Your task to perform on an android device: Empty the shopping cart on bestbuy. Image 0: 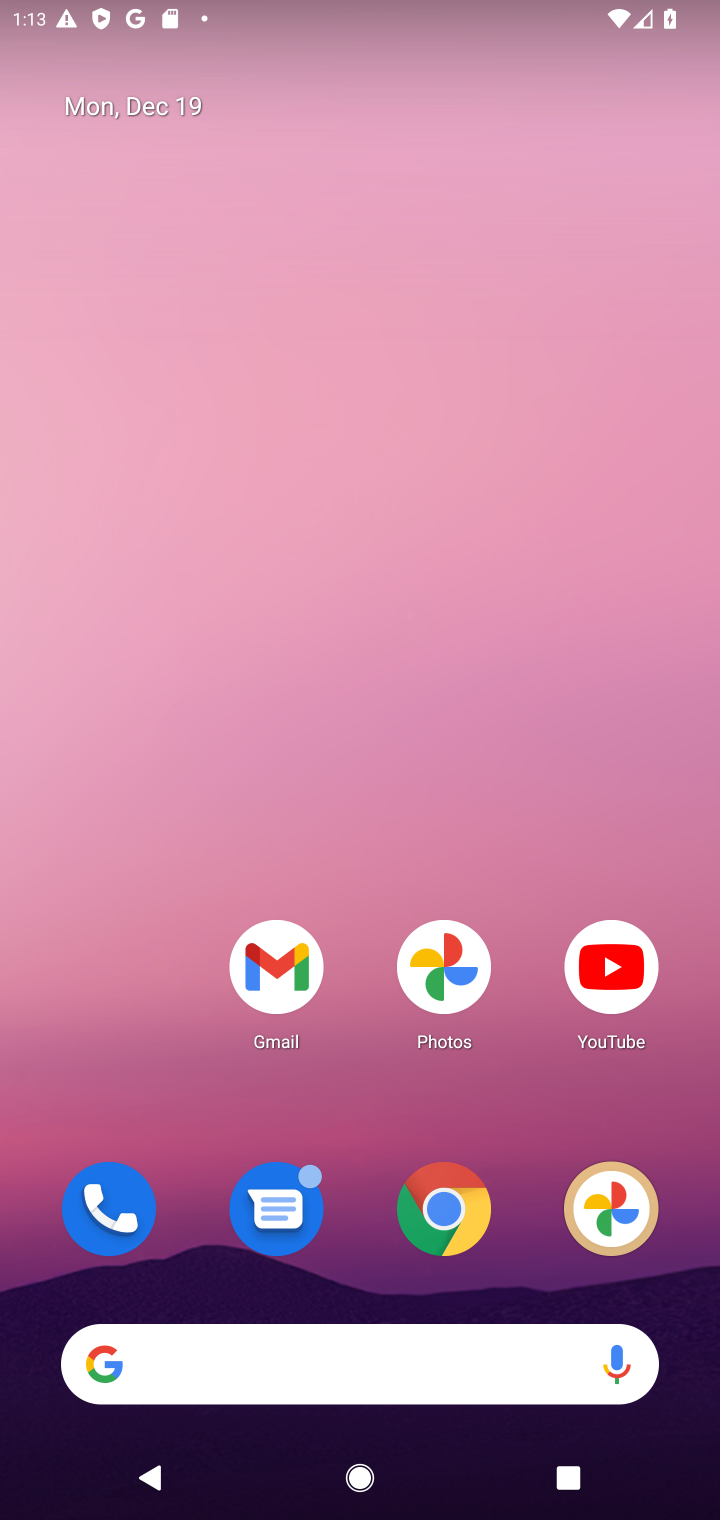
Step 0: click (439, 1205)
Your task to perform on an android device: Empty the shopping cart on bestbuy. Image 1: 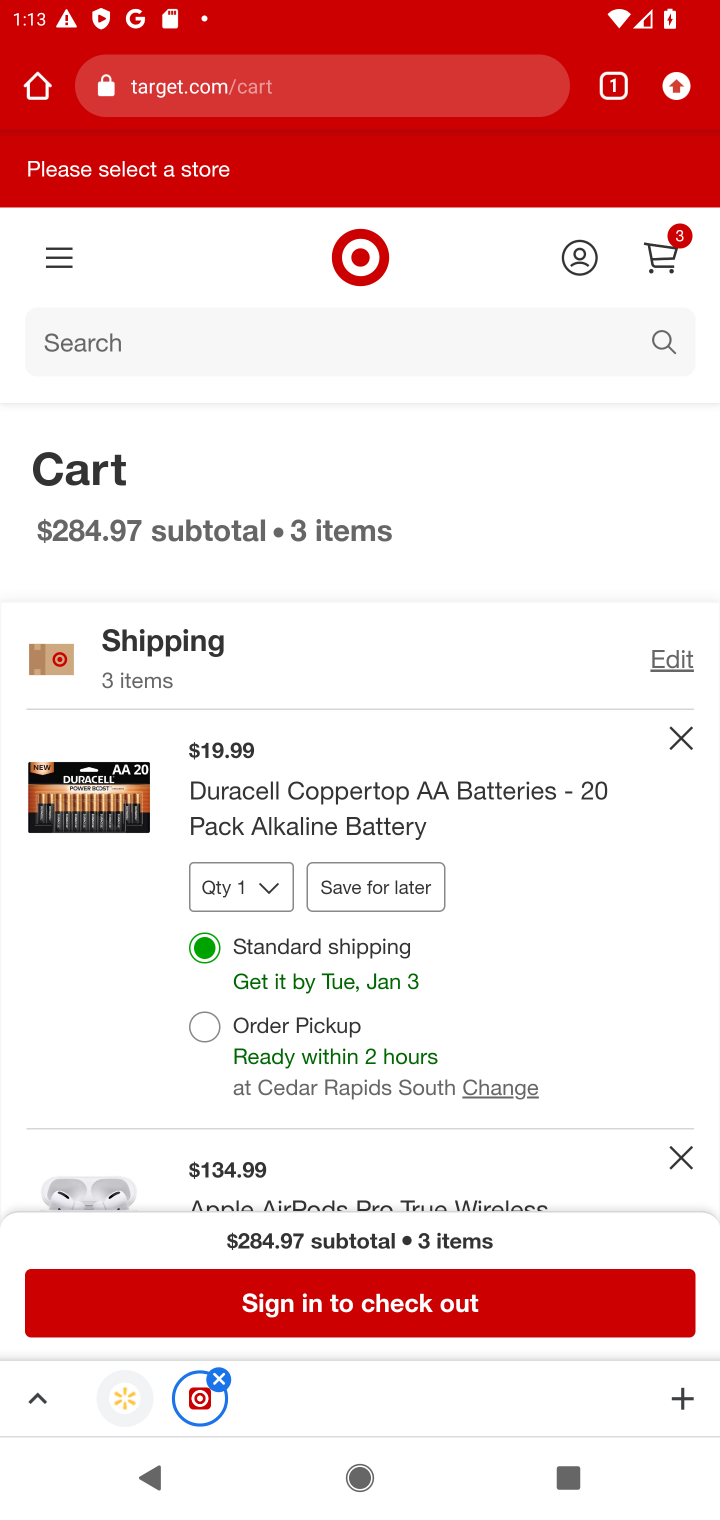
Step 1: click (355, 84)
Your task to perform on an android device: Empty the shopping cart on bestbuy. Image 2: 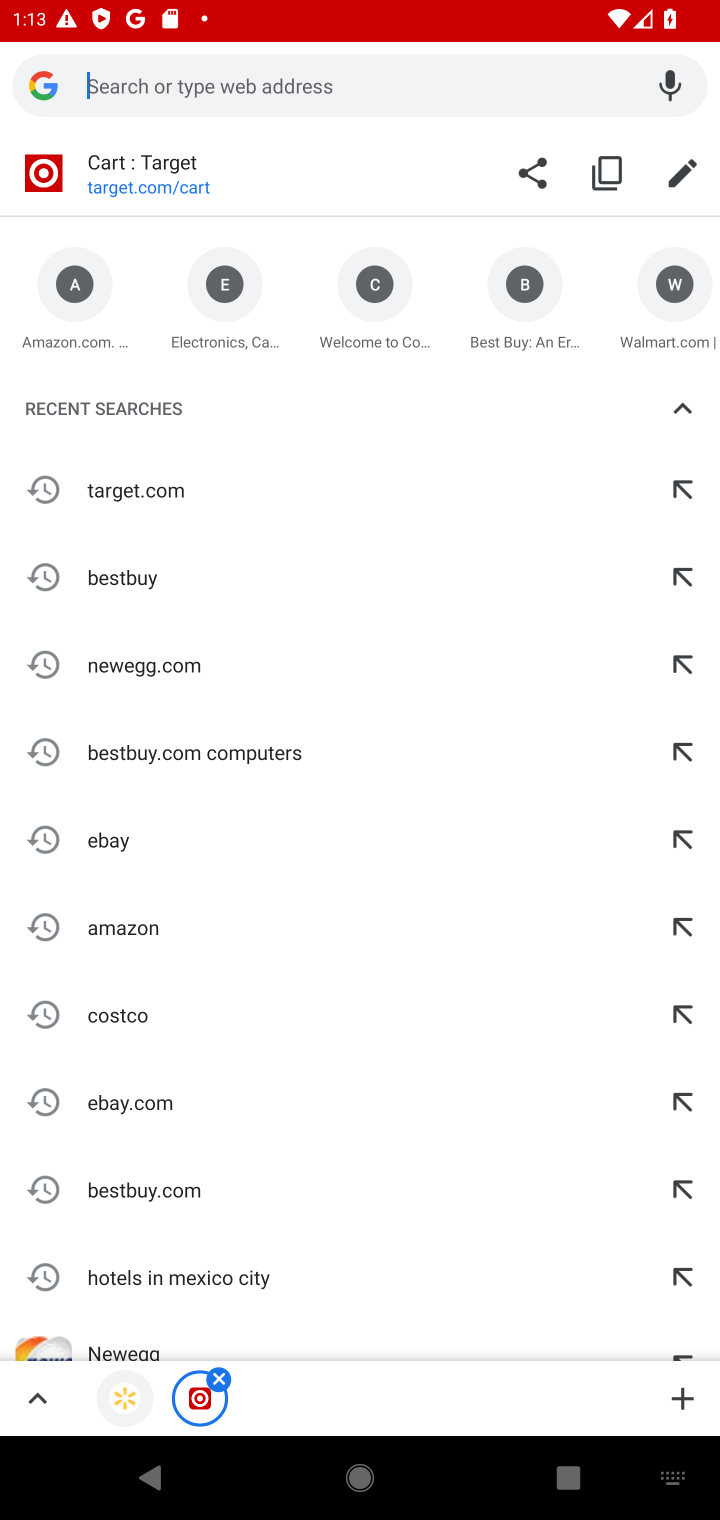
Step 2: click (173, 1189)
Your task to perform on an android device: Empty the shopping cart on bestbuy. Image 3: 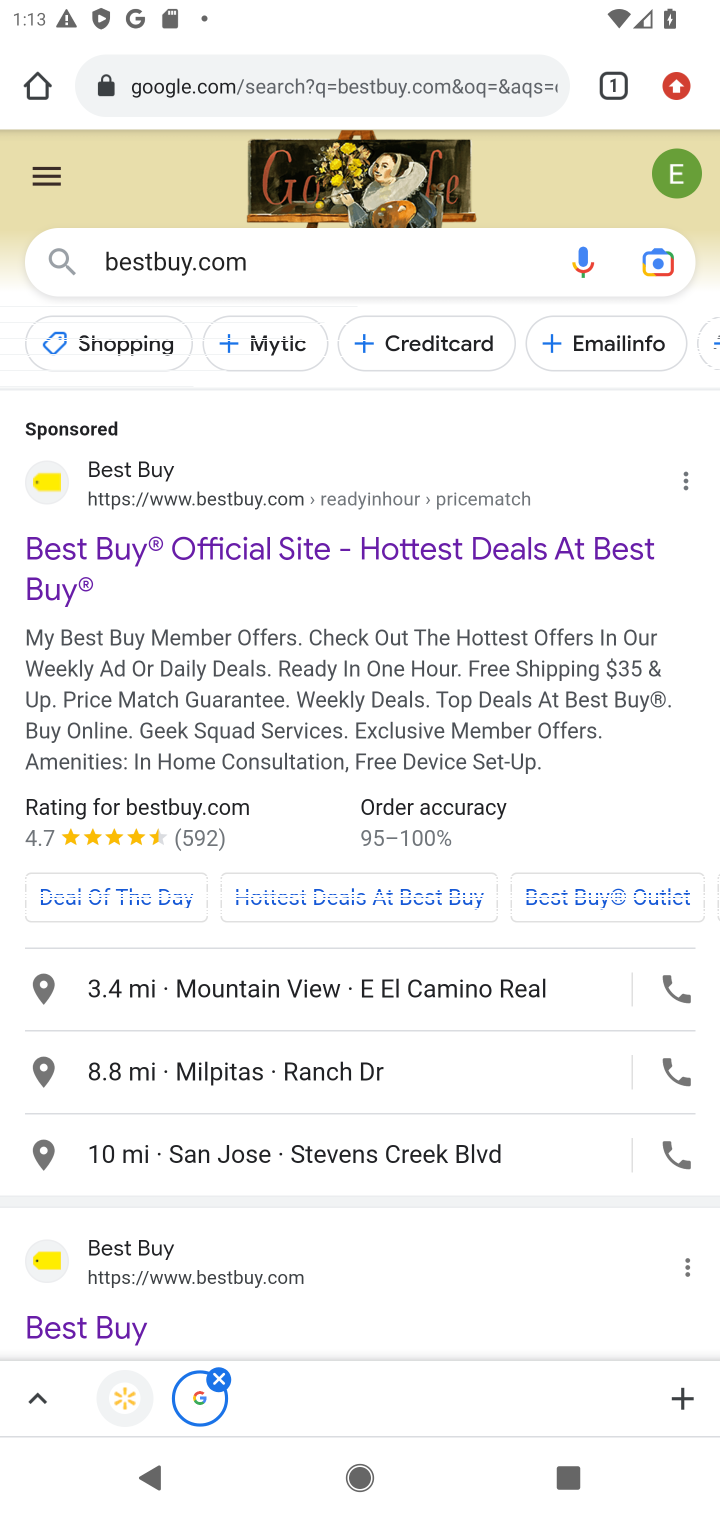
Step 3: click (293, 553)
Your task to perform on an android device: Empty the shopping cart on bestbuy. Image 4: 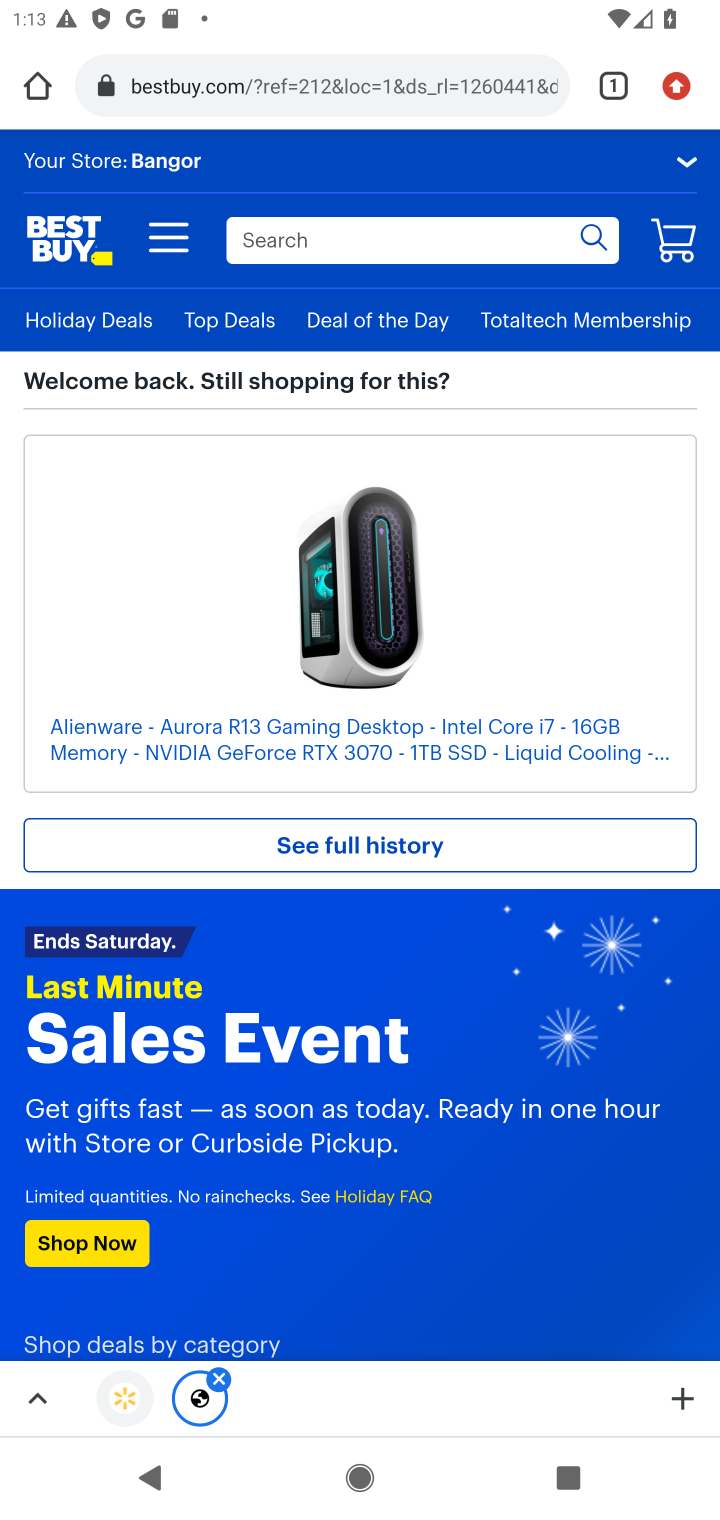
Step 4: click (666, 237)
Your task to perform on an android device: Empty the shopping cart on bestbuy. Image 5: 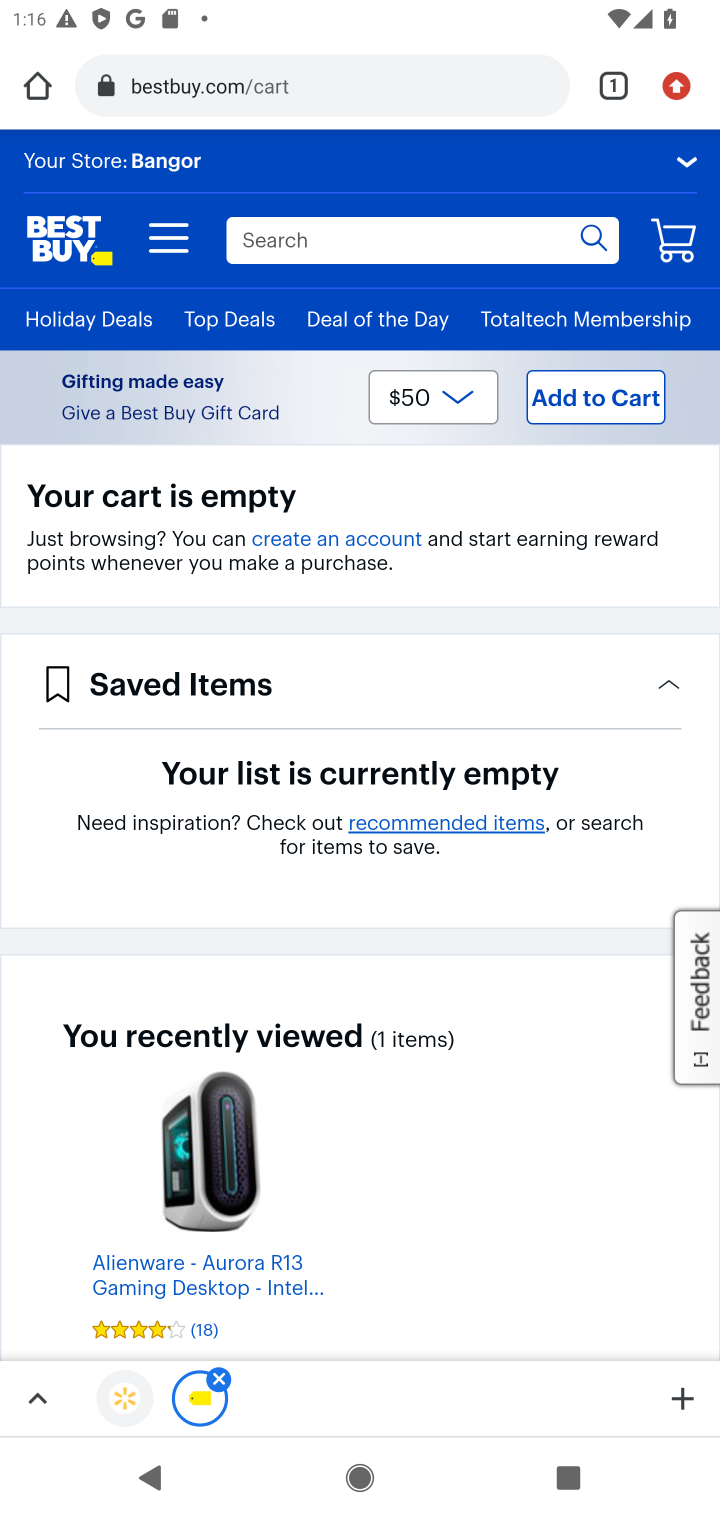
Step 5: task complete